Your task to perform on an android device: Open calendar and show me the second week of next month Image 0: 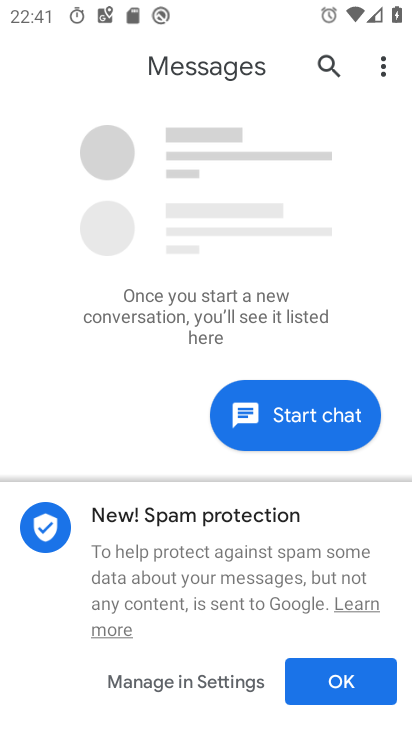
Step 0: press home button
Your task to perform on an android device: Open calendar and show me the second week of next month Image 1: 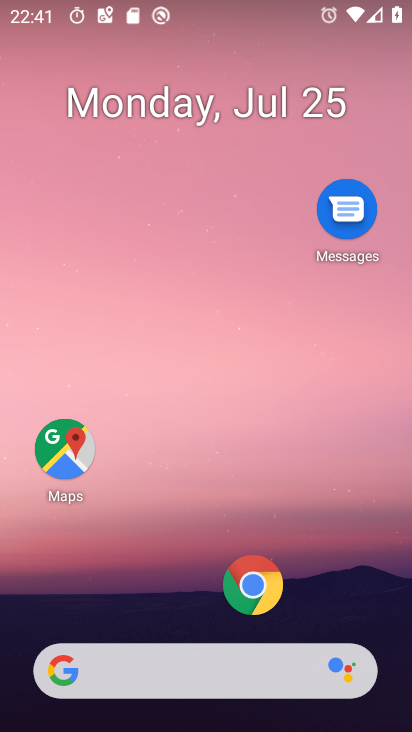
Step 1: drag from (180, 677) to (308, 43)
Your task to perform on an android device: Open calendar and show me the second week of next month Image 2: 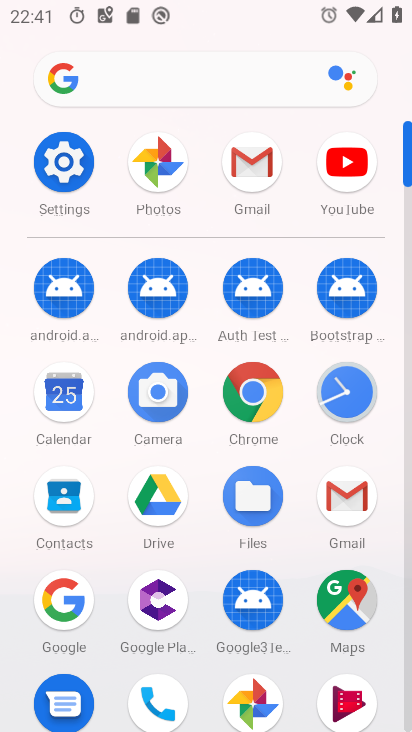
Step 2: click (58, 399)
Your task to perform on an android device: Open calendar and show me the second week of next month Image 3: 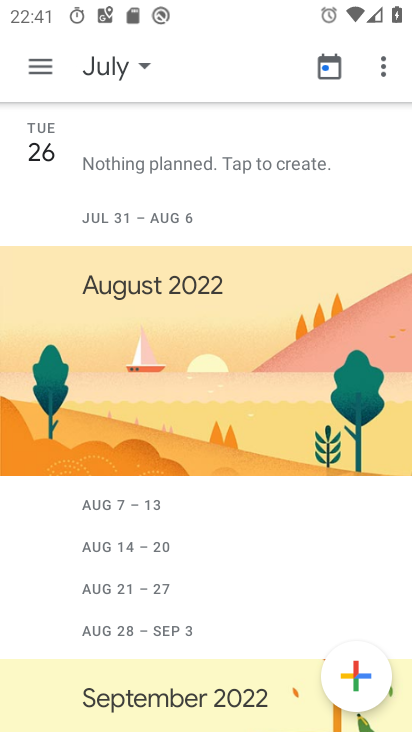
Step 3: click (118, 68)
Your task to perform on an android device: Open calendar and show me the second week of next month Image 4: 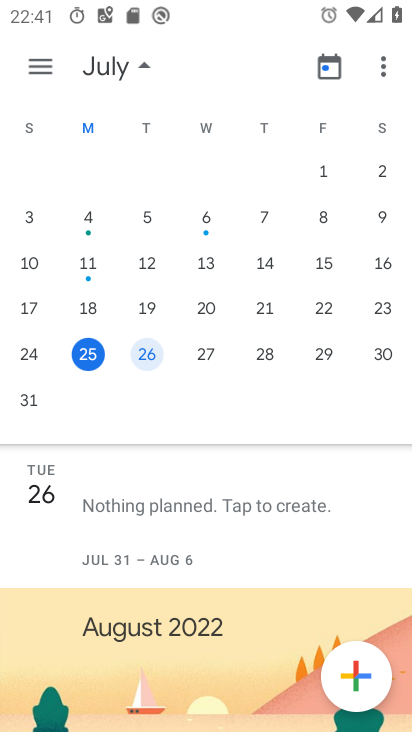
Step 4: drag from (334, 305) to (8, 311)
Your task to perform on an android device: Open calendar and show me the second week of next month Image 5: 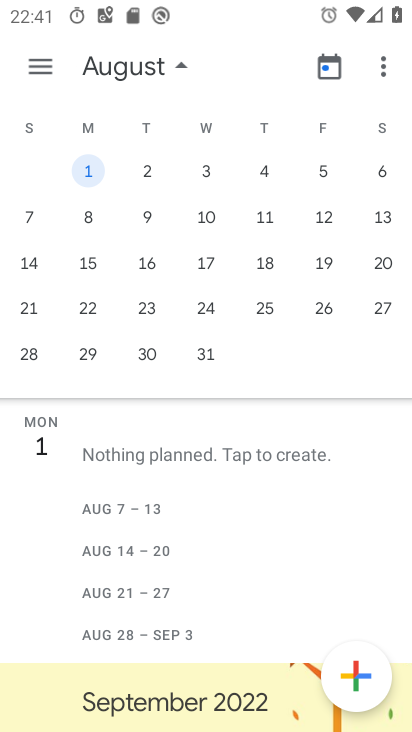
Step 5: click (32, 222)
Your task to perform on an android device: Open calendar and show me the second week of next month Image 6: 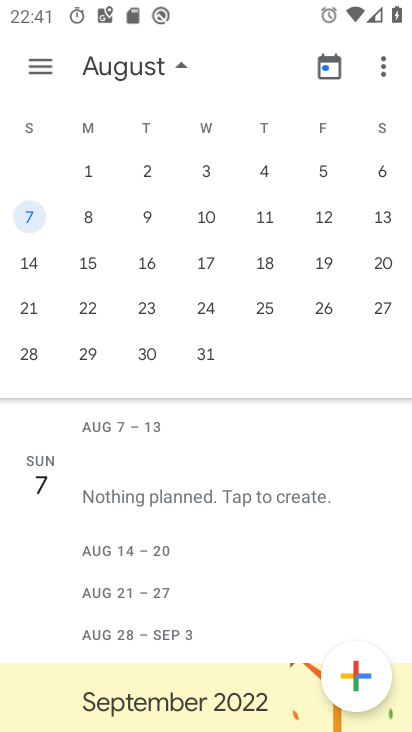
Step 6: click (33, 76)
Your task to perform on an android device: Open calendar and show me the second week of next month Image 7: 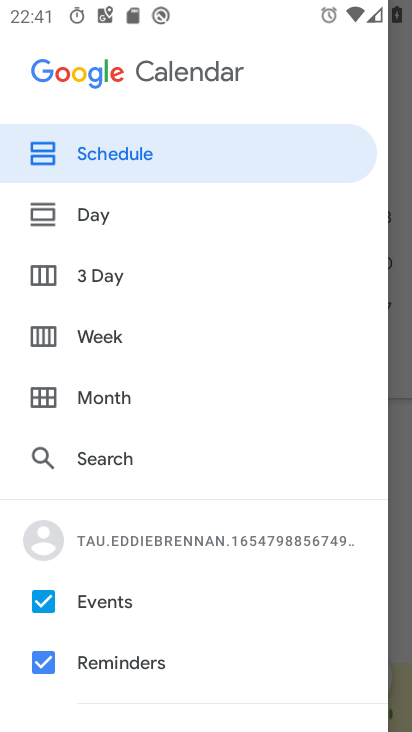
Step 7: click (86, 339)
Your task to perform on an android device: Open calendar and show me the second week of next month Image 8: 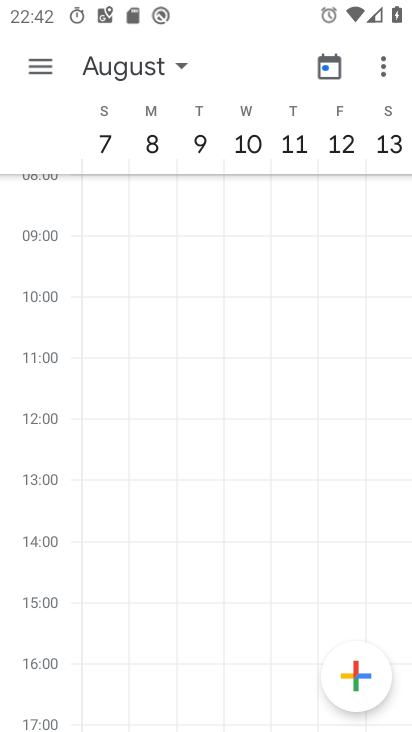
Step 8: task complete